Your task to perform on an android device: Is it going to rain this weekend? Image 0: 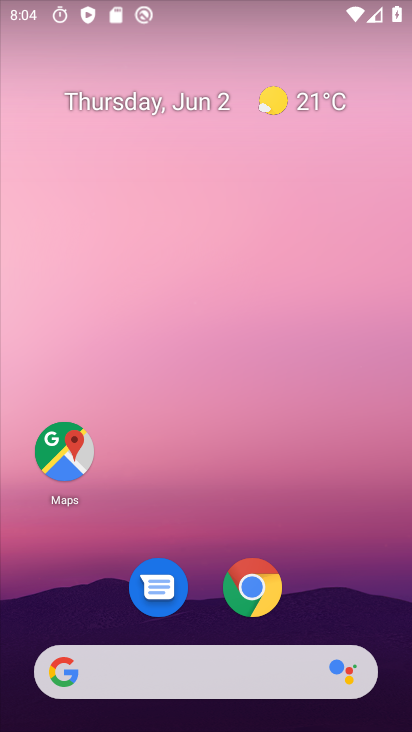
Step 0: click (315, 107)
Your task to perform on an android device: Is it going to rain this weekend? Image 1: 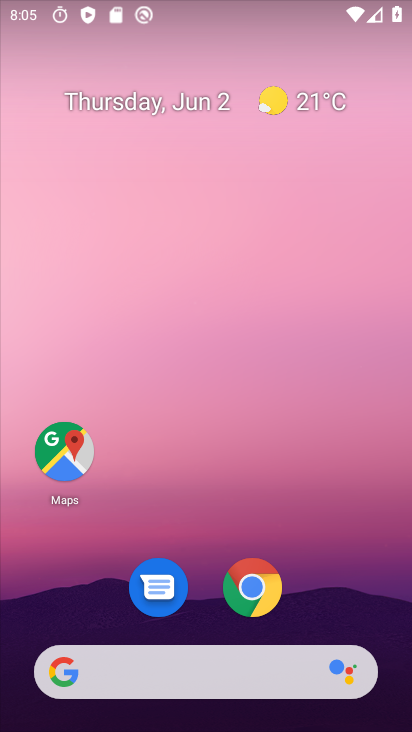
Step 1: click (312, 112)
Your task to perform on an android device: Is it going to rain this weekend? Image 2: 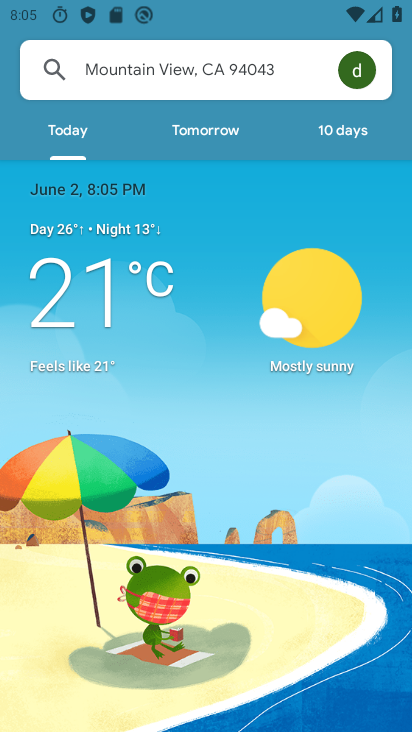
Step 2: click (339, 134)
Your task to perform on an android device: Is it going to rain this weekend? Image 3: 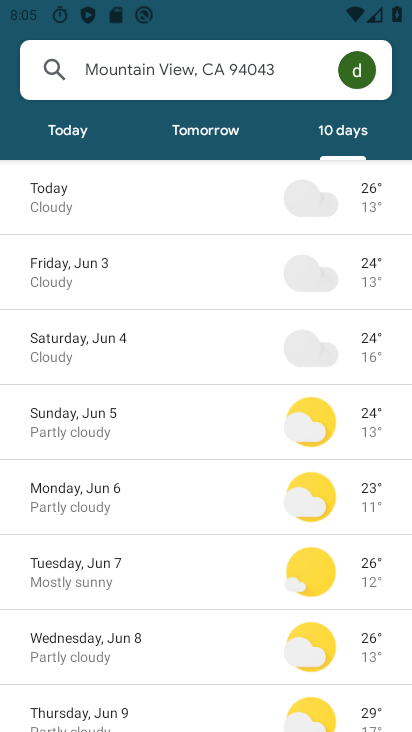
Step 3: task complete